Your task to perform on an android device: Open maps Image 0: 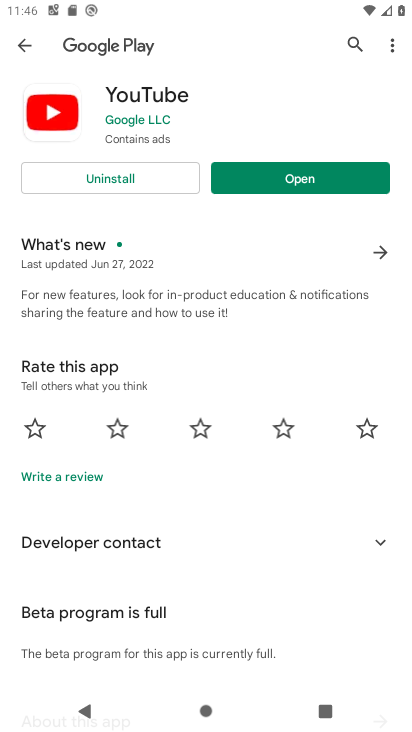
Step 0: press home button
Your task to perform on an android device: Open maps Image 1: 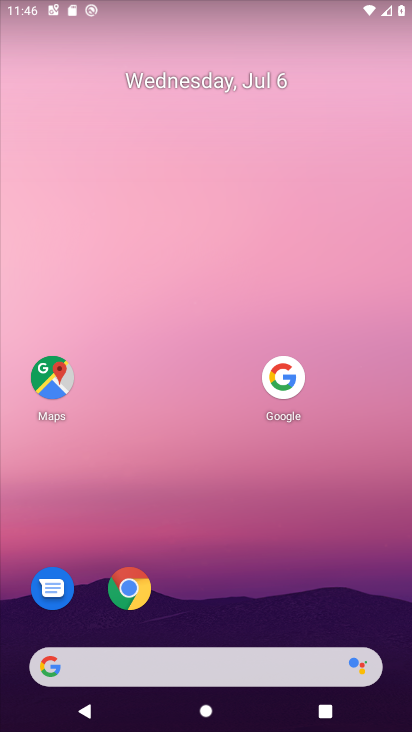
Step 1: click (53, 381)
Your task to perform on an android device: Open maps Image 2: 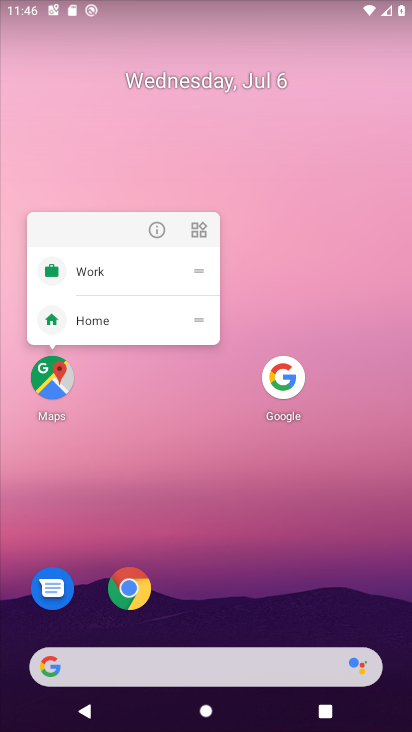
Step 2: click (53, 381)
Your task to perform on an android device: Open maps Image 3: 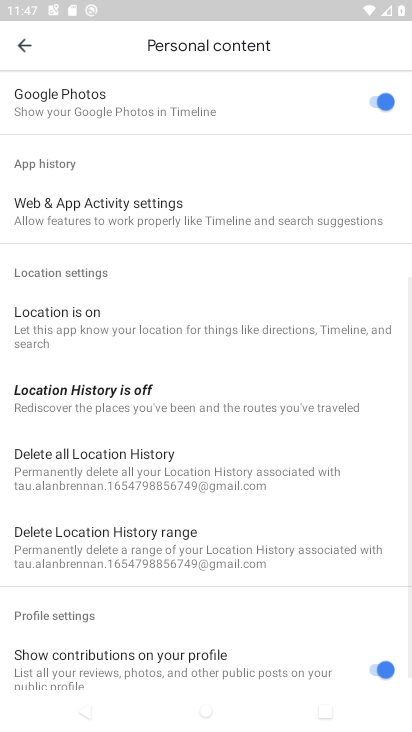
Step 3: click (19, 41)
Your task to perform on an android device: Open maps Image 4: 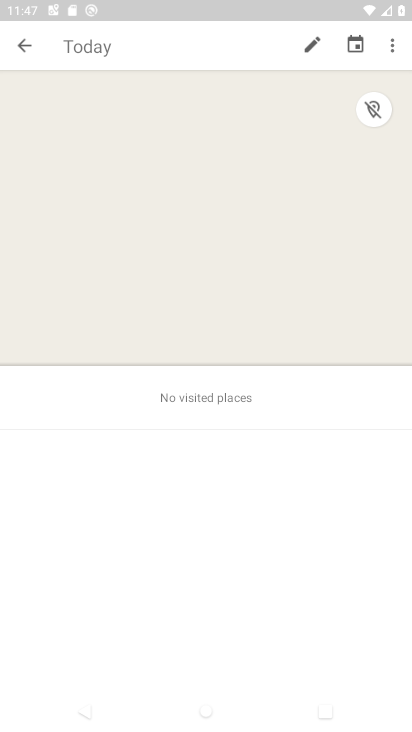
Step 4: click (19, 41)
Your task to perform on an android device: Open maps Image 5: 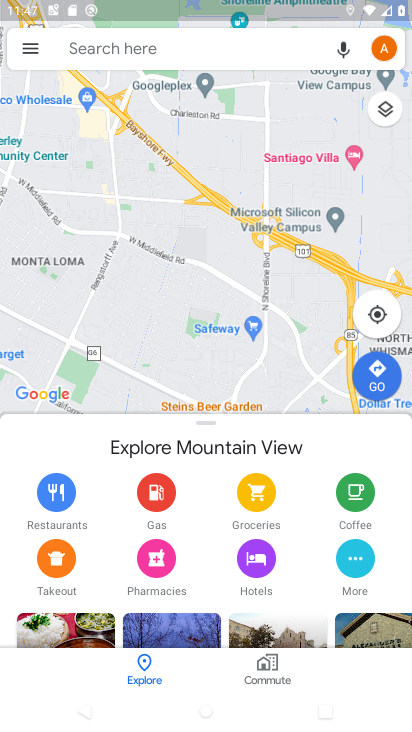
Step 5: task complete